Your task to perform on an android device: Open ESPN.com Image 0: 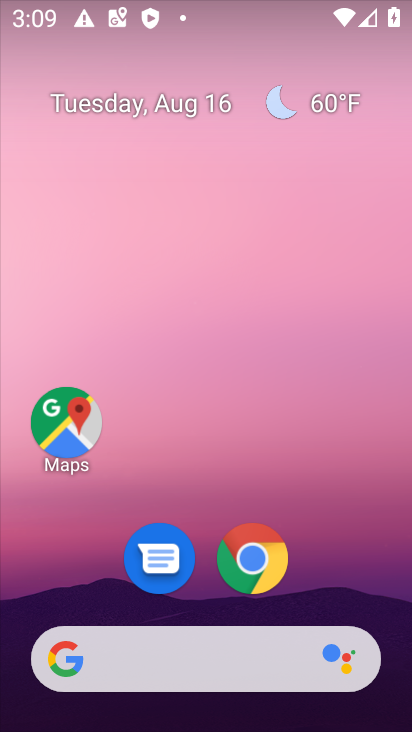
Step 0: click (254, 561)
Your task to perform on an android device: Open ESPN.com Image 1: 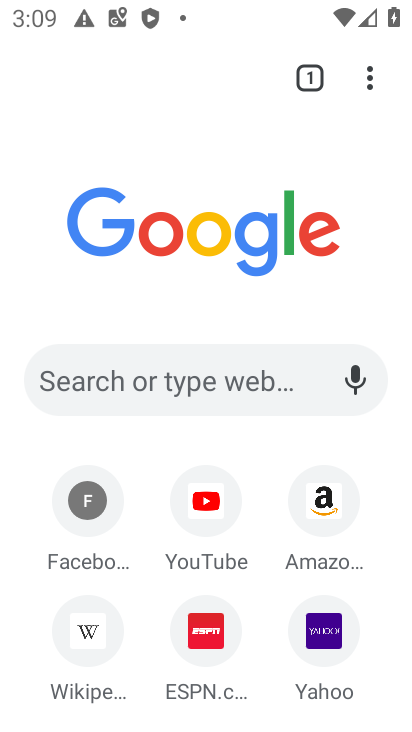
Step 1: click (138, 369)
Your task to perform on an android device: Open ESPN.com Image 2: 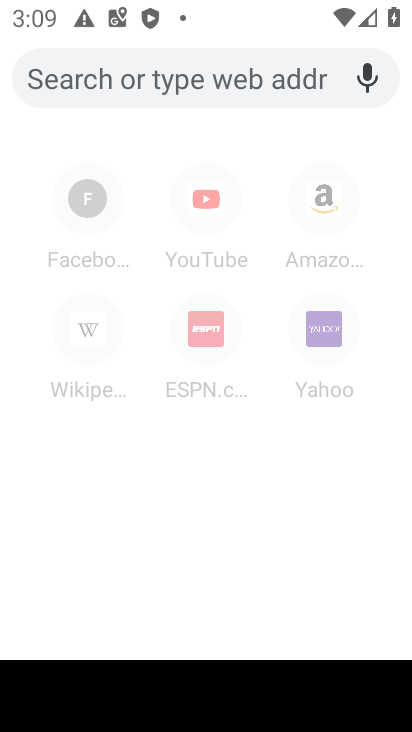
Step 2: type "ESPN.com"
Your task to perform on an android device: Open ESPN.com Image 3: 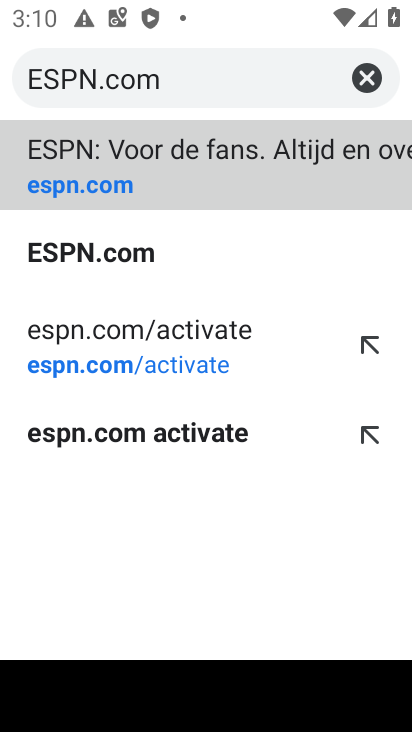
Step 3: click (93, 146)
Your task to perform on an android device: Open ESPN.com Image 4: 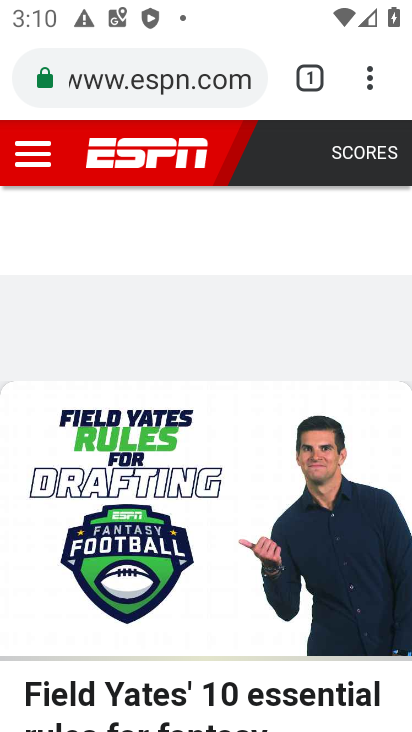
Step 4: task complete